Your task to perform on an android device: move a message to another label in the gmail app Image 0: 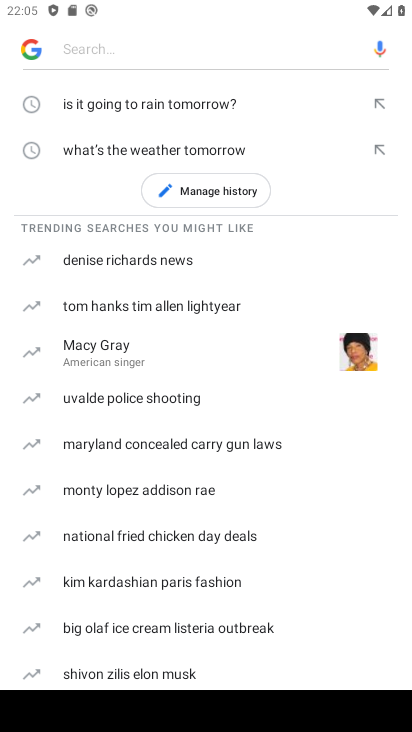
Step 0: press home button
Your task to perform on an android device: move a message to another label in the gmail app Image 1: 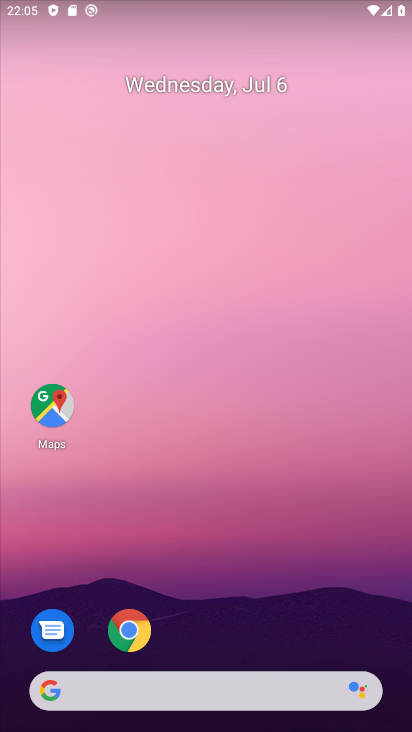
Step 1: drag from (319, 621) to (231, 142)
Your task to perform on an android device: move a message to another label in the gmail app Image 2: 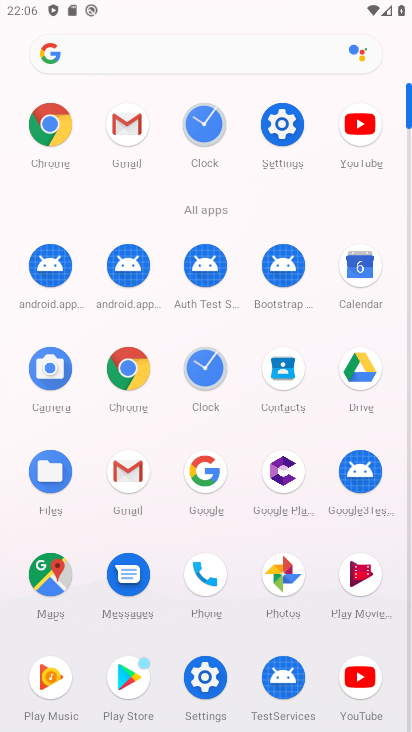
Step 2: click (132, 463)
Your task to perform on an android device: move a message to another label in the gmail app Image 3: 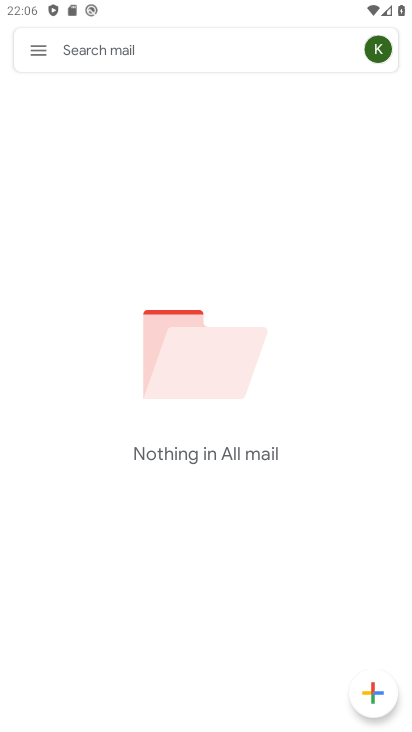
Step 3: click (38, 47)
Your task to perform on an android device: move a message to another label in the gmail app Image 4: 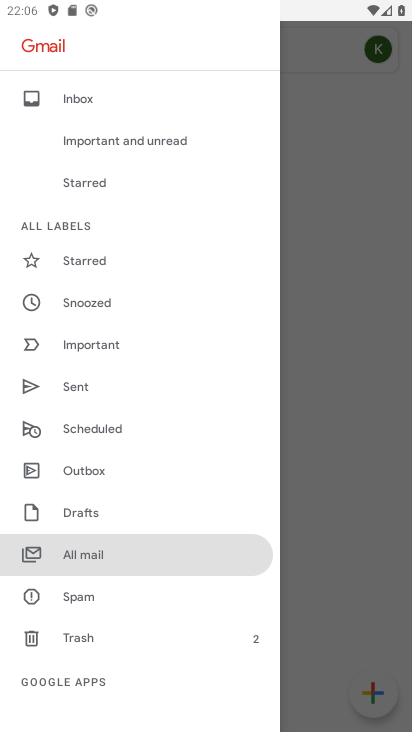
Step 4: drag from (130, 681) to (112, 531)
Your task to perform on an android device: move a message to another label in the gmail app Image 5: 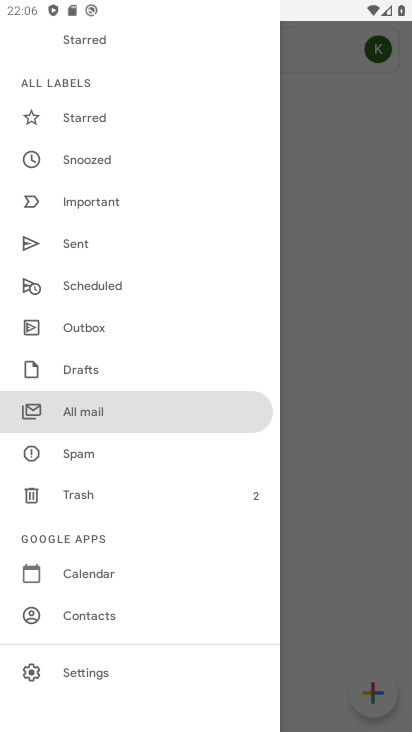
Step 5: click (135, 418)
Your task to perform on an android device: move a message to another label in the gmail app Image 6: 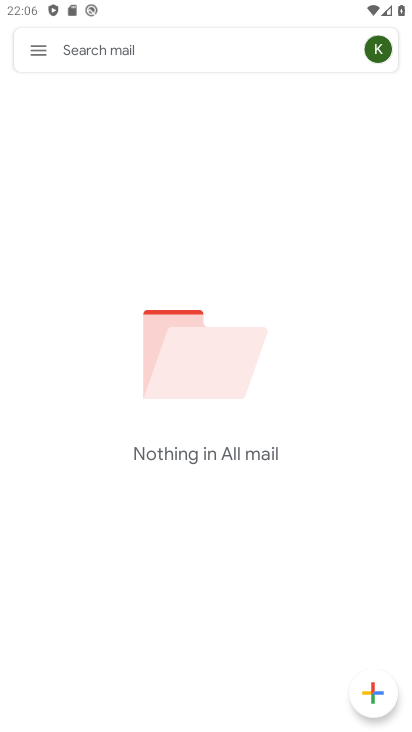
Step 6: task complete